Your task to perform on an android device: What's the weather? Image 0: 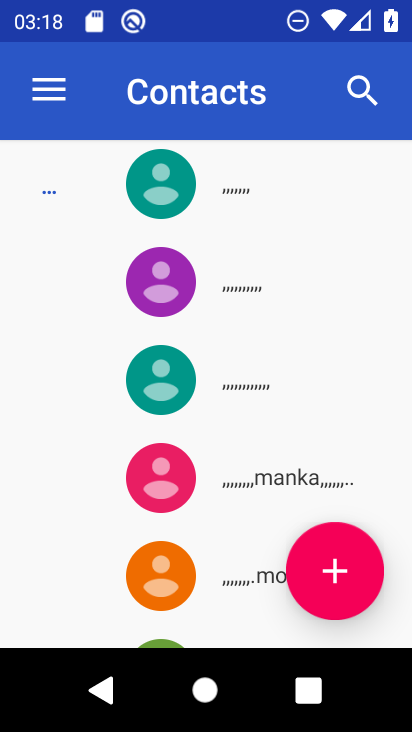
Step 0: press home button
Your task to perform on an android device: What's the weather? Image 1: 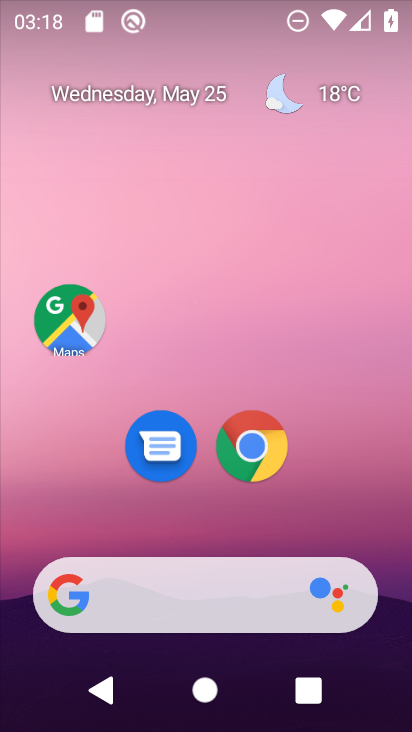
Step 1: drag from (223, 567) to (258, 126)
Your task to perform on an android device: What's the weather? Image 2: 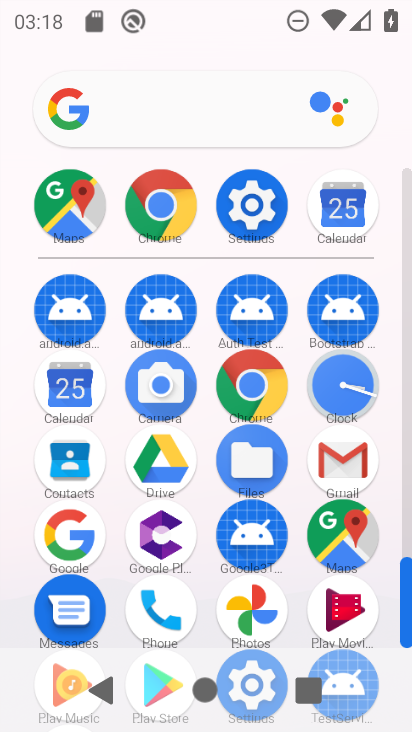
Step 2: click (80, 535)
Your task to perform on an android device: What's the weather? Image 3: 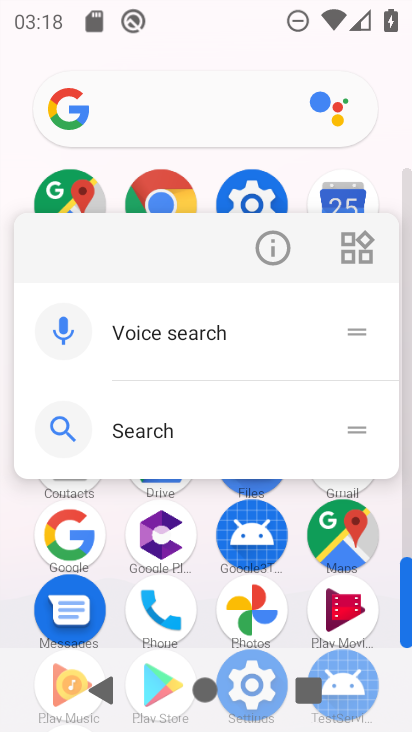
Step 3: click (80, 538)
Your task to perform on an android device: What's the weather? Image 4: 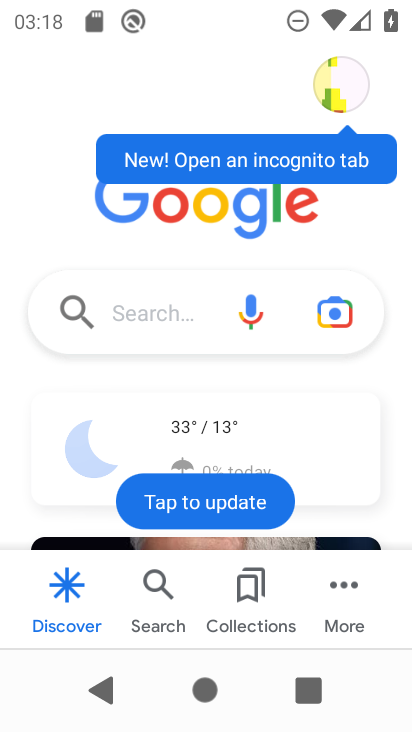
Step 4: click (82, 471)
Your task to perform on an android device: What's the weather? Image 5: 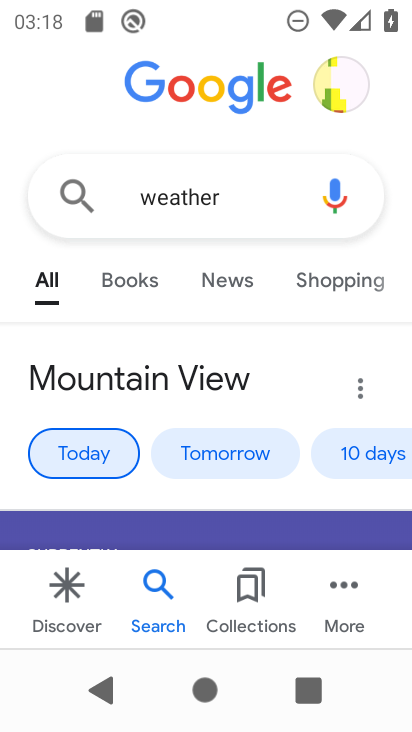
Step 5: task complete